Your task to perform on an android device: Open Google Image 0: 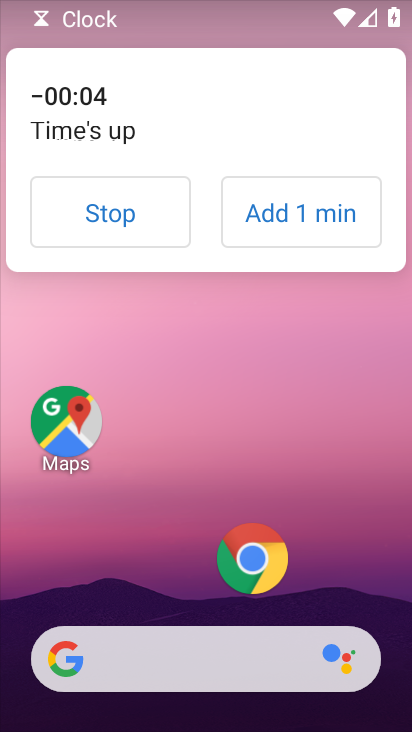
Step 0: click (138, 218)
Your task to perform on an android device: Open Google Image 1: 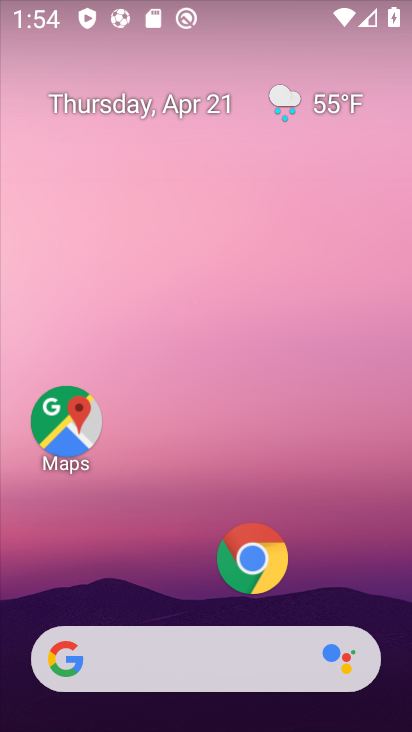
Step 1: drag from (158, 568) to (240, 95)
Your task to perform on an android device: Open Google Image 2: 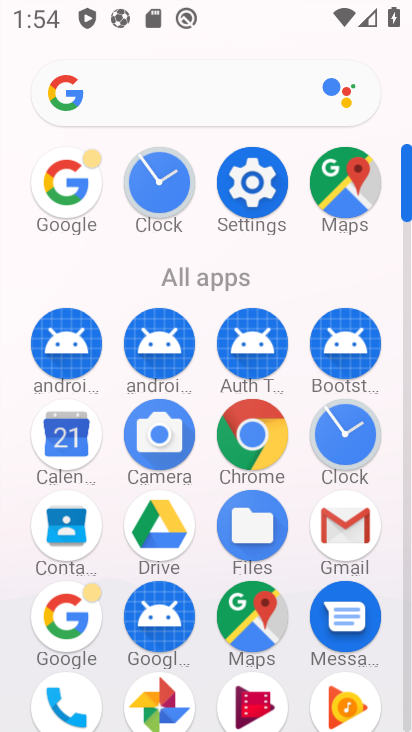
Step 2: click (88, 631)
Your task to perform on an android device: Open Google Image 3: 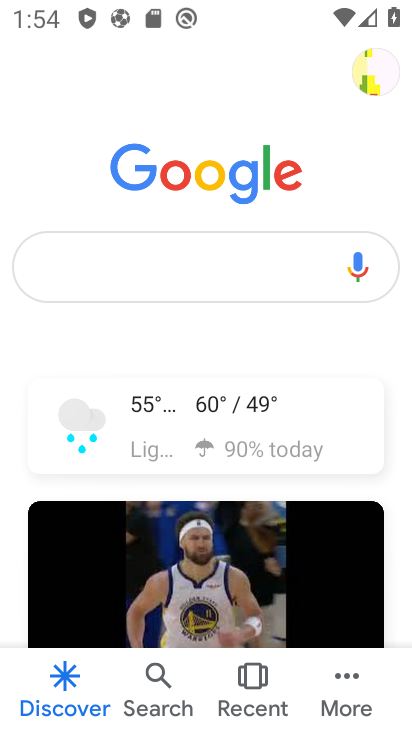
Step 3: task complete